Your task to perform on an android device: turn off sleep mode Image 0: 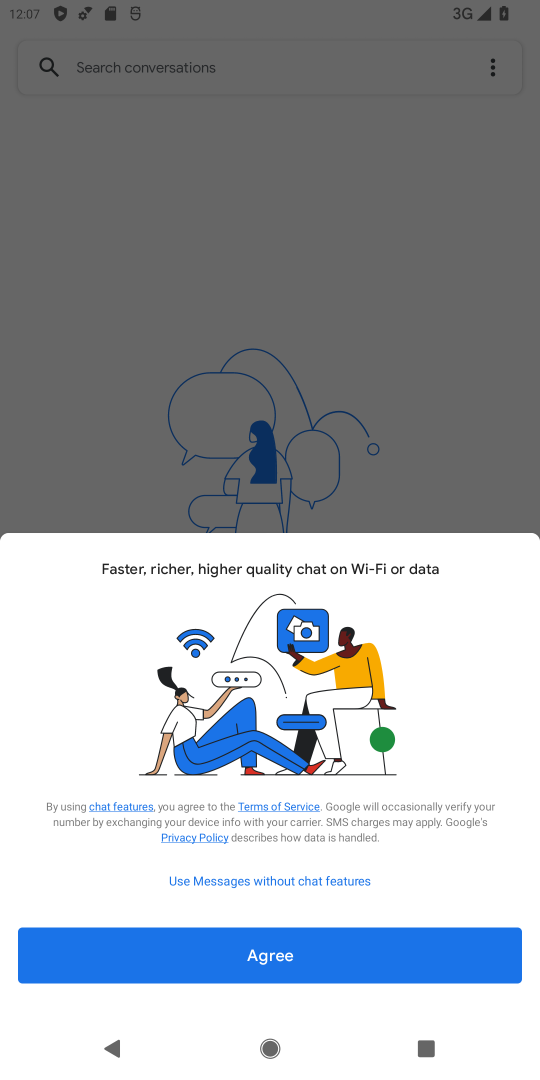
Step 0: drag from (335, 836) to (335, 490)
Your task to perform on an android device: turn off sleep mode Image 1: 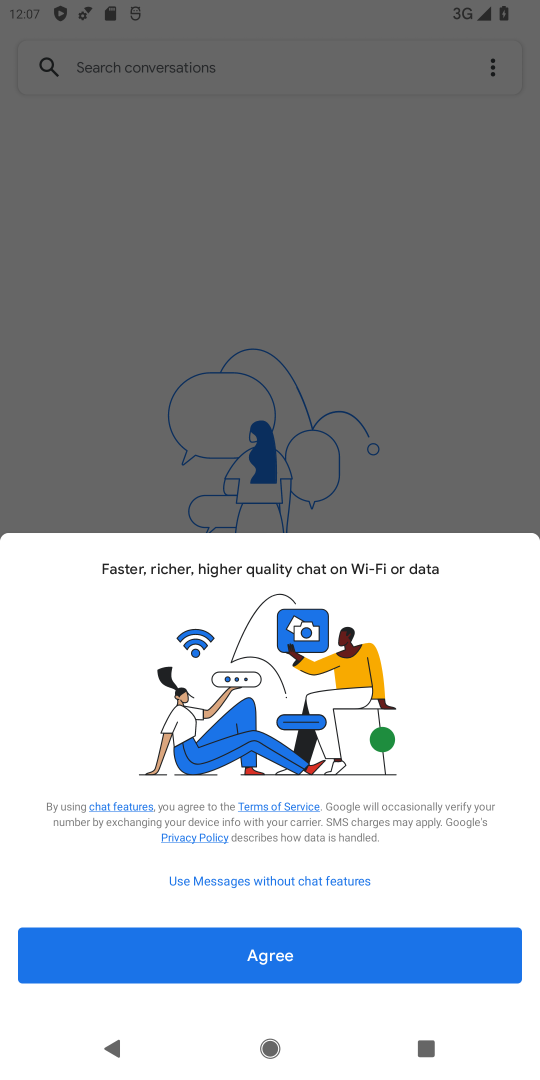
Step 1: press home button
Your task to perform on an android device: turn off sleep mode Image 2: 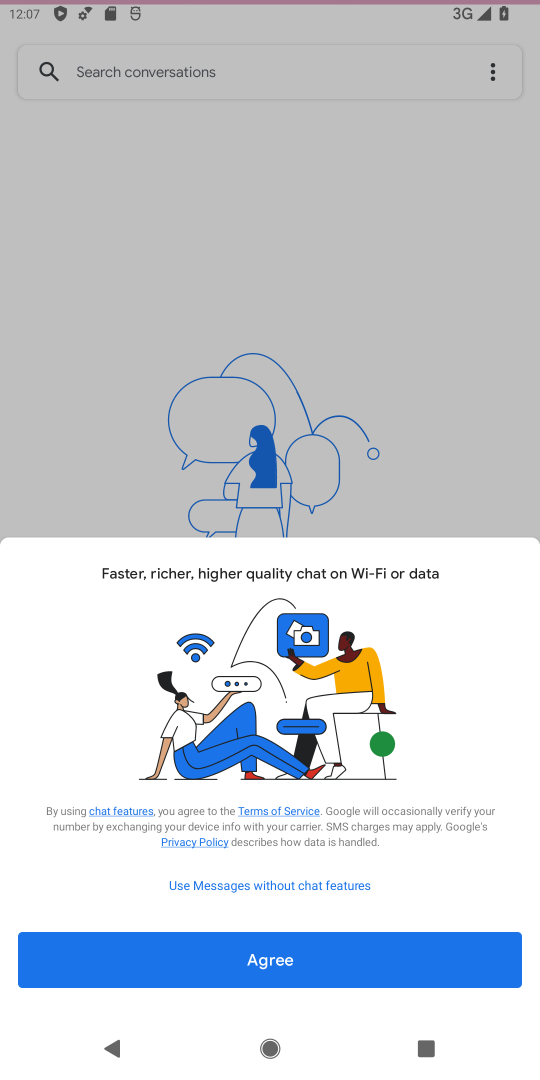
Step 2: drag from (262, 818) to (345, 79)
Your task to perform on an android device: turn off sleep mode Image 3: 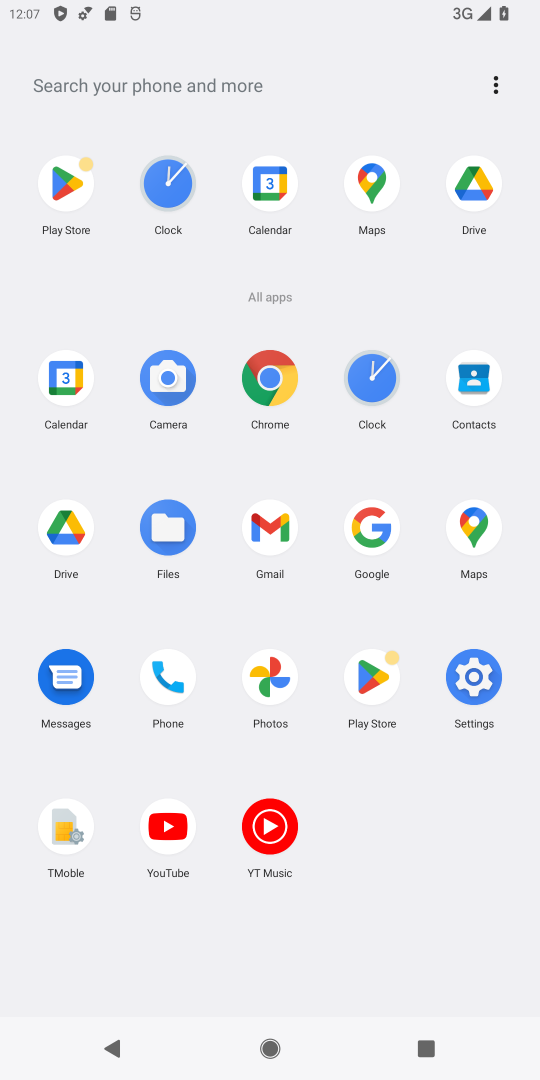
Step 3: click (459, 675)
Your task to perform on an android device: turn off sleep mode Image 4: 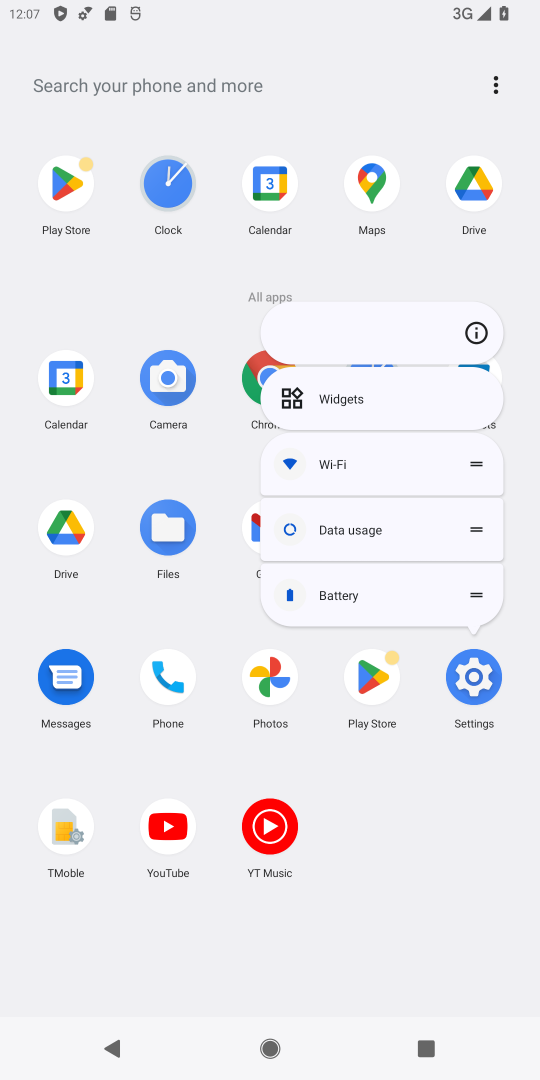
Step 4: click (474, 330)
Your task to perform on an android device: turn off sleep mode Image 5: 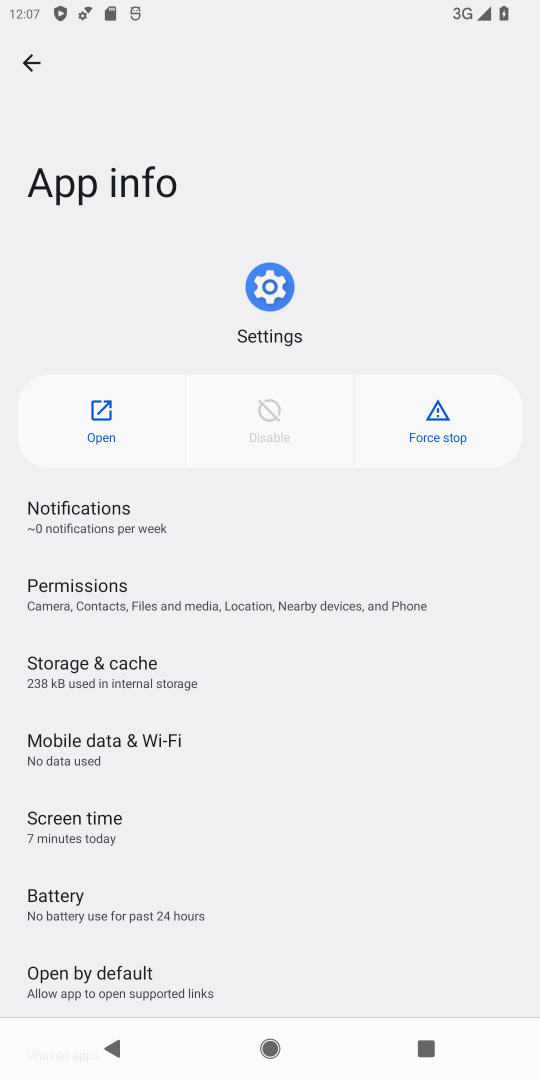
Step 5: click (92, 419)
Your task to perform on an android device: turn off sleep mode Image 6: 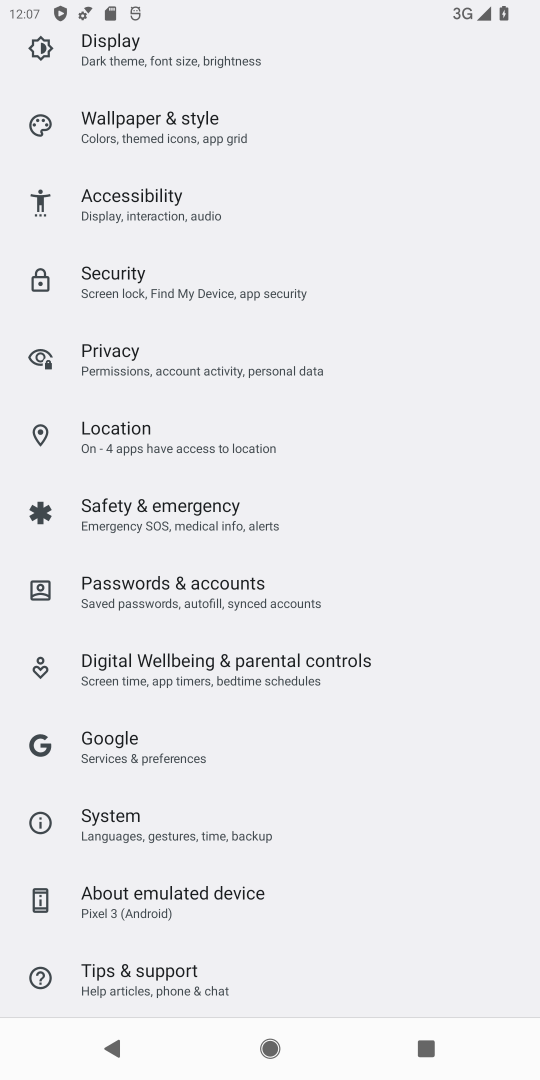
Step 6: drag from (329, 199) to (118, 1062)
Your task to perform on an android device: turn off sleep mode Image 7: 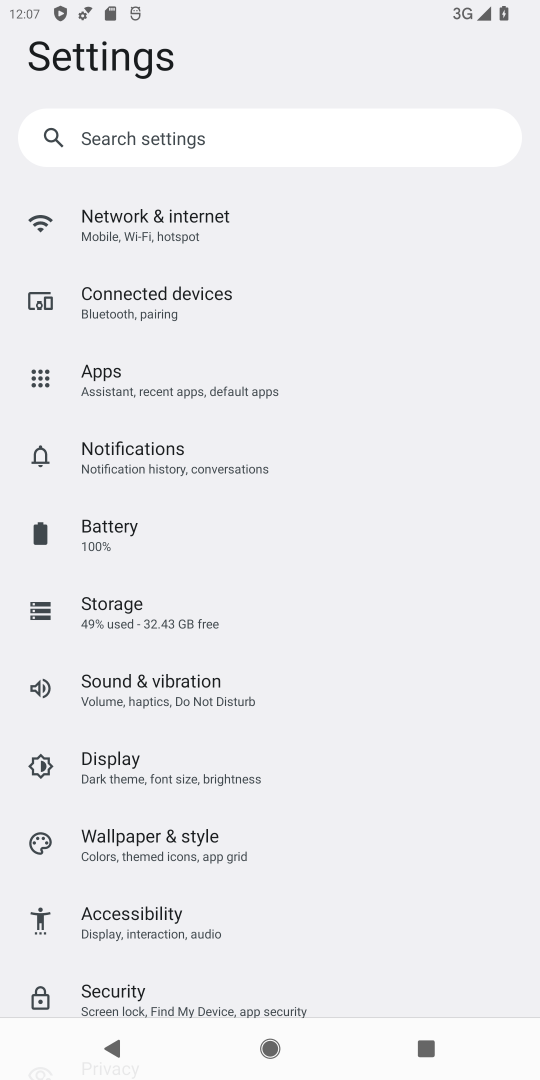
Step 7: click (153, 769)
Your task to perform on an android device: turn off sleep mode Image 8: 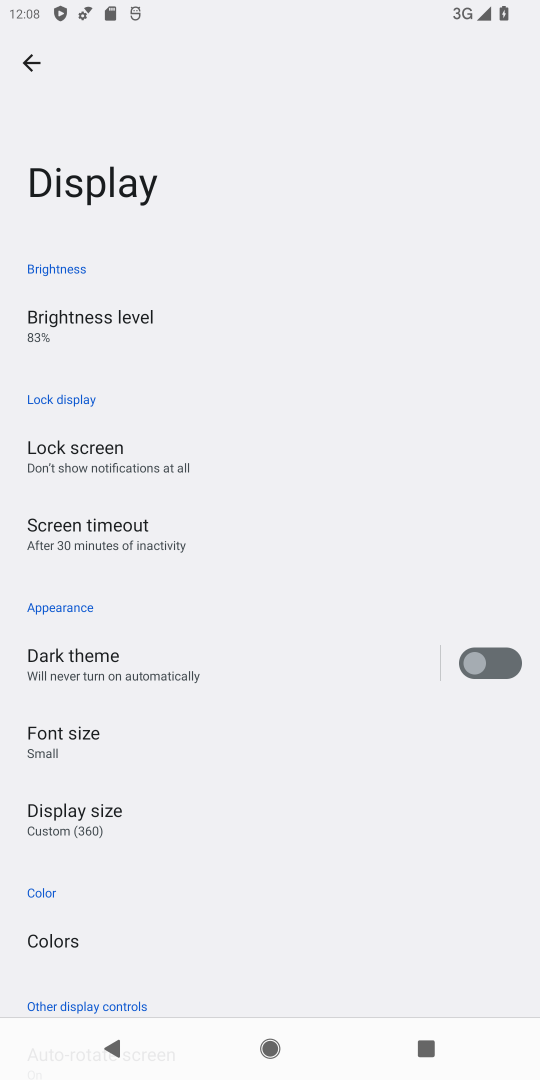
Step 8: click (118, 525)
Your task to perform on an android device: turn off sleep mode Image 9: 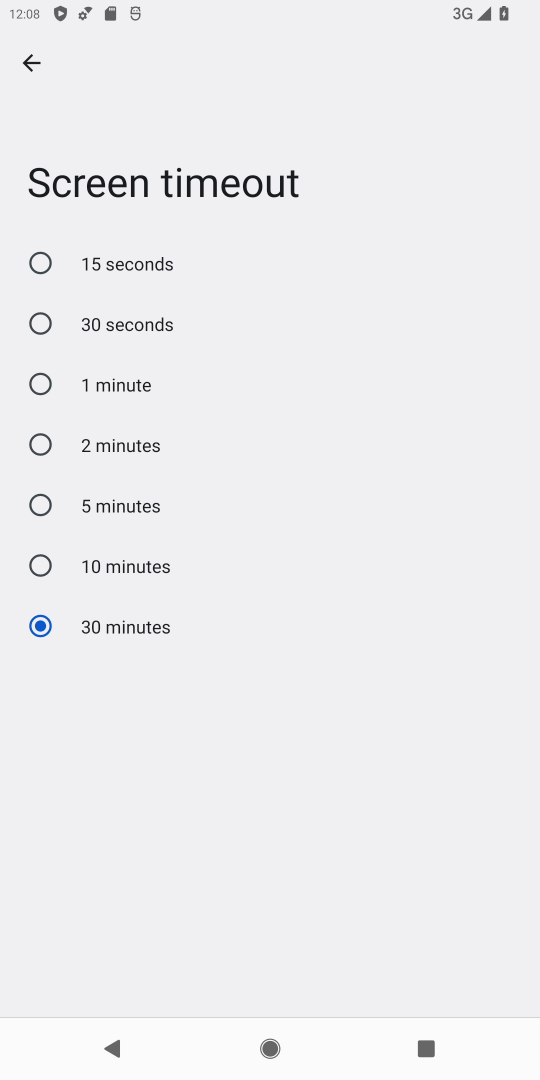
Step 9: click (57, 395)
Your task to perform on an android device: turn off sleep mode Image 10: 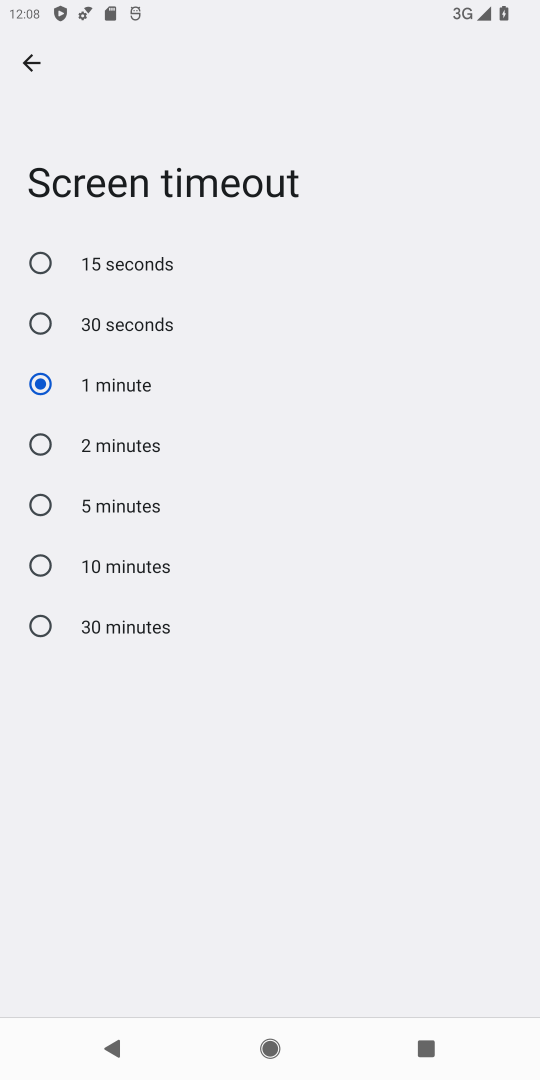
Step 10: task complete